Your task to perform on an android device: turn on bluetooth scan Image 0: 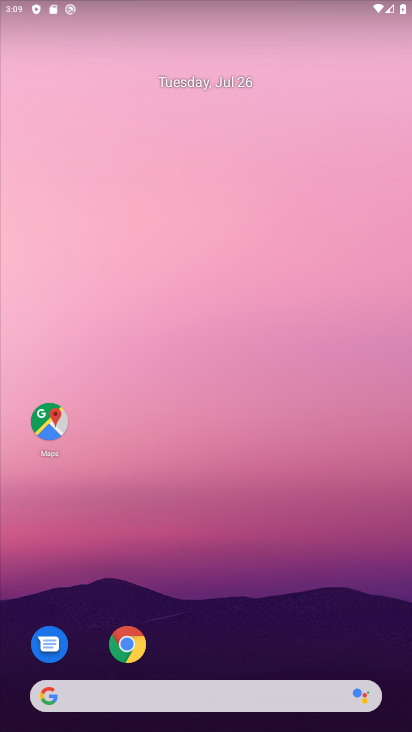
Step 0: drag from (243, 650) to (245, 158)
Your task to perform on an android device: turn on bluetooth scan Image 1: 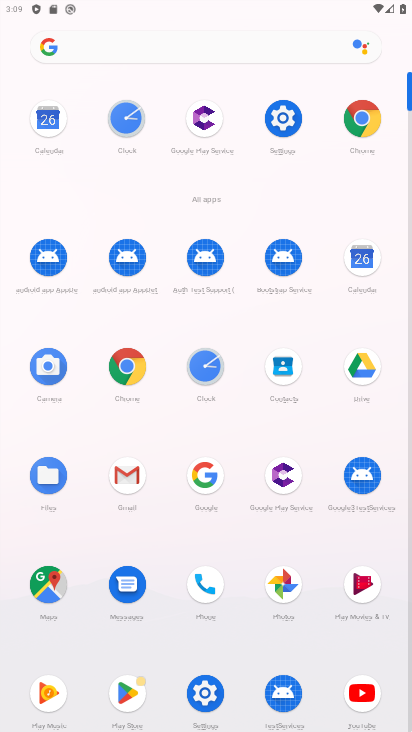
Step 1: click (291, 118)
Your task to perform on an android device: turn on bluetooth scan Image 2: 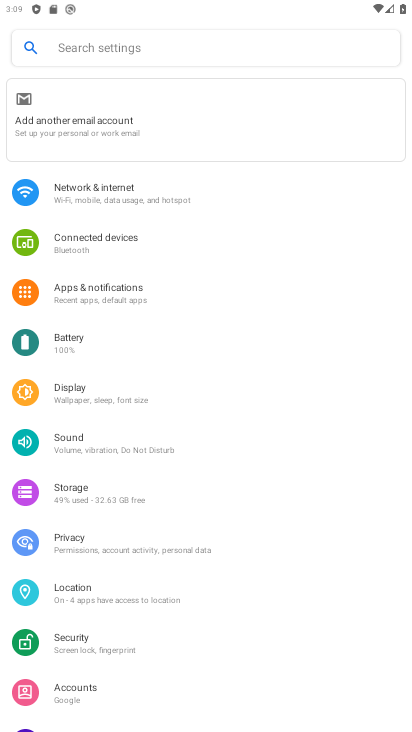
Step 2: click (153, 46)
Your task to perform on an android device: turn on bluetooth scan Image 3: 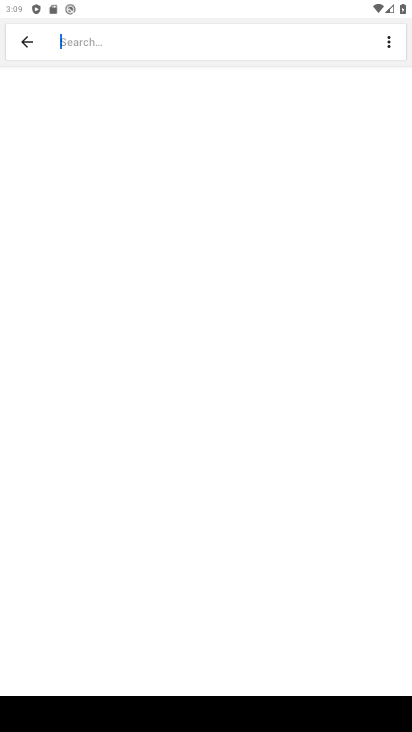
Step 3: type " bluetooth scan "
Your task to perform on an android device: turn on bluetooth scan Image 4: 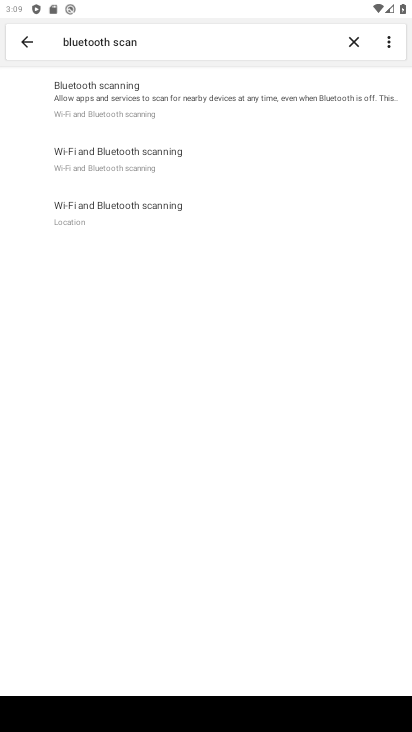
Step 4: click (144, 85)
Your task to perform on an android device: turn on bluetooth scan Image 5: 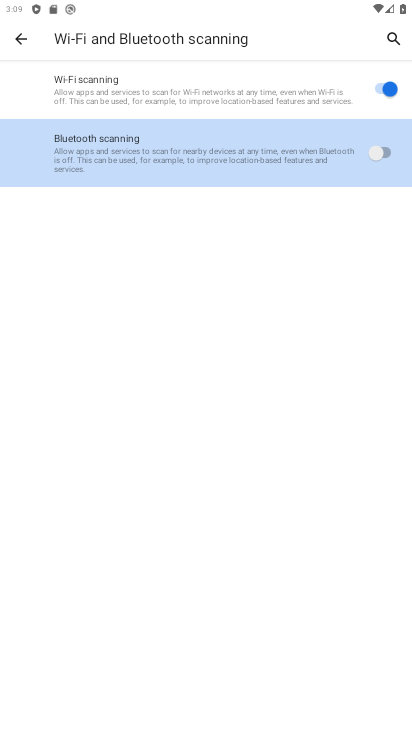
Step 5: click (378, 149)
Your task to perform on an android device: turn on bluetooth scan Image 6: 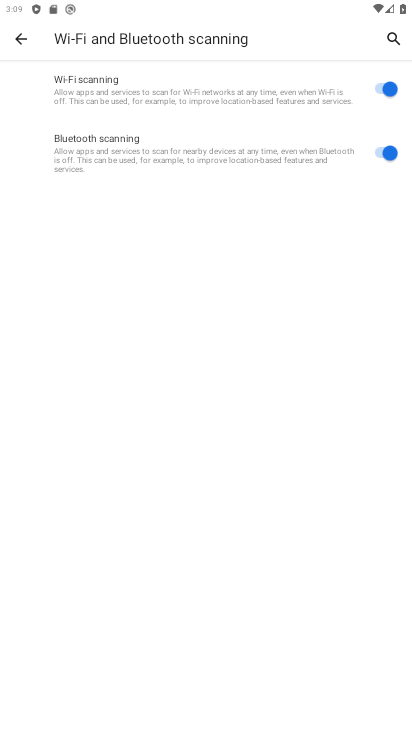
Step 6: task complete